Your task to perform on an android device: turn off location Image 0: 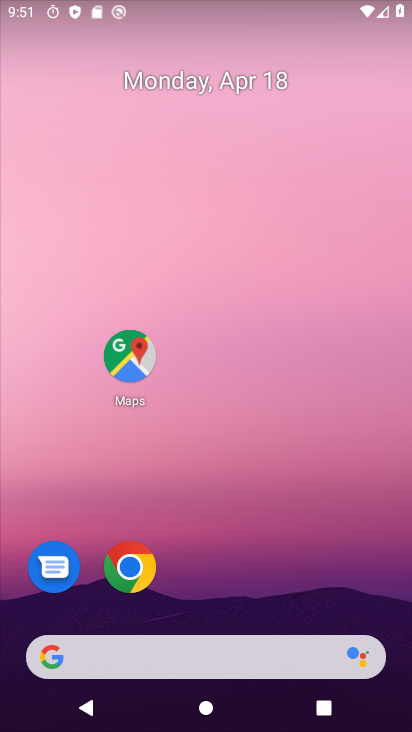
Step 0: drag from (239, 609) to (247, 293)
Your task to perform on an android device: turn off location Image 1: 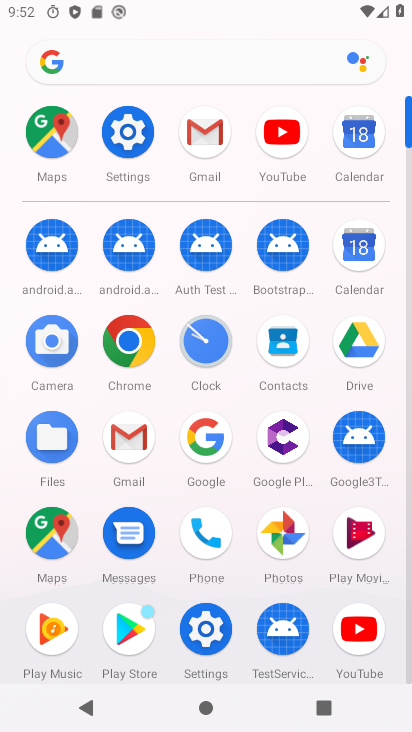
Step 1: click (215, 610)
Your task to perform on an android device: turn off location Image 2: 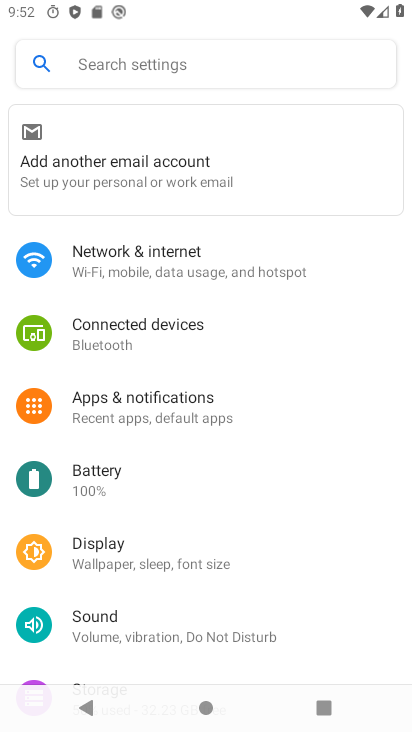
Step 2: click (217, 64)
Your task to perform on an android device: turn off location Image 3: 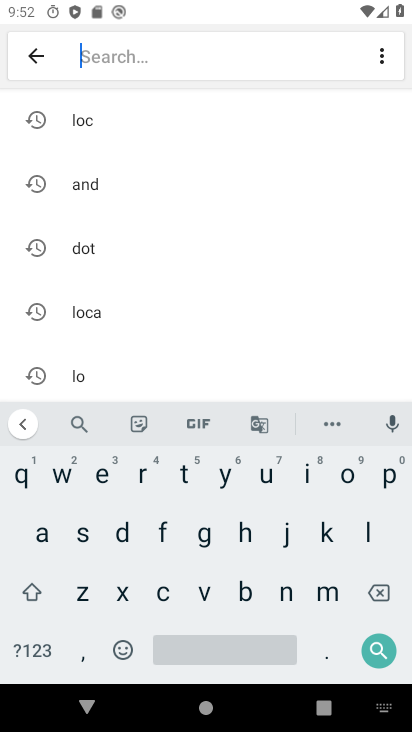
Step 3: click (101, 311)
Your task to perform on an android device: turn off location Image 4: 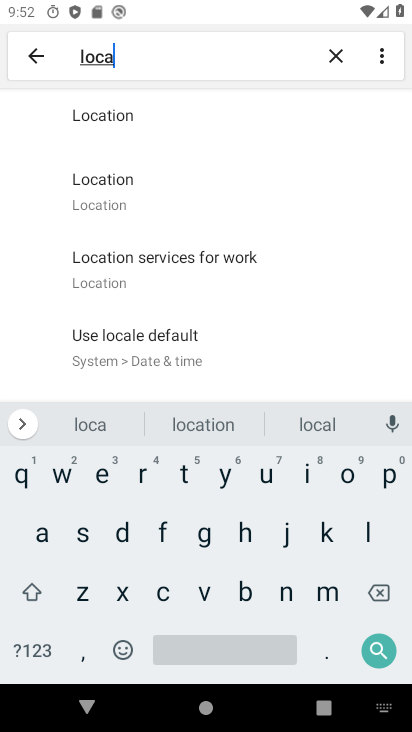
Step 4: click (89, 205)
Your task to perform on an android device: turn off location Image 5: 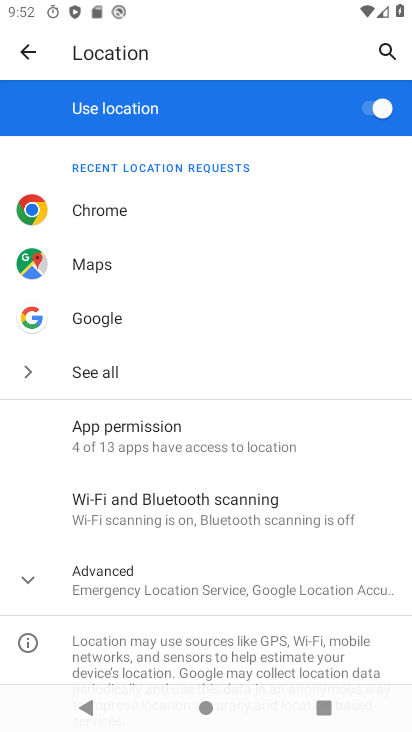
Step 5: click (346, 113)
Your task to perform on an android device: turn off location Image 6: 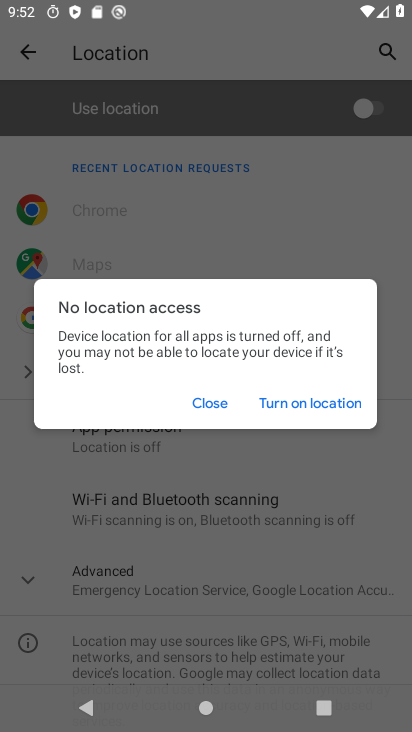
Step 6: task complete